Your task to perform on an android device: delete a single message in the gmail app Image 0: 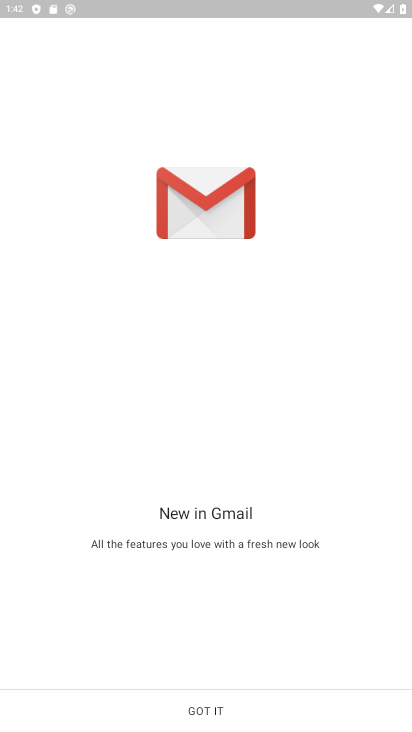
Step 0: click (213, 717)
Your task to perform on an android device: delete a single message in the gmail app Image 1: 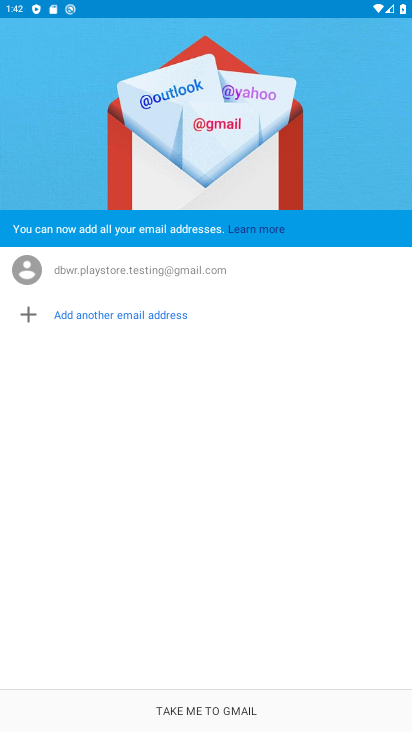
Step 1: click (213, 715)
Your task to perform on an android device: delete a single message in the gmail app Image 2: 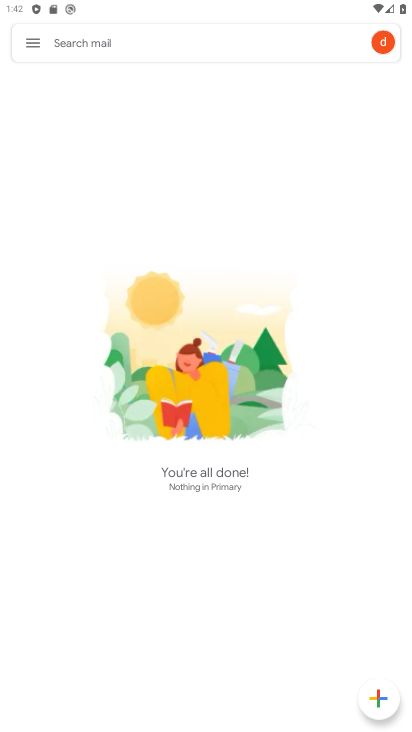
Step 2: click (39, 40)
Your task to perform on an android device: delete a single message in the gmail app Image 3: 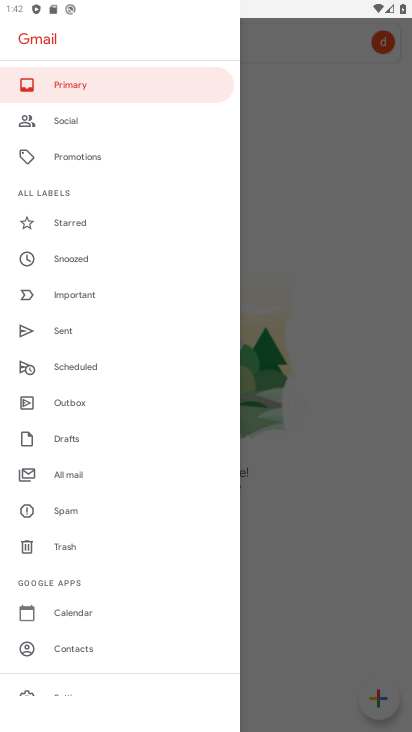
Step 3: click (103, 474)
Your task to perform on an android device: delete a single message in the gmail app Image 4: 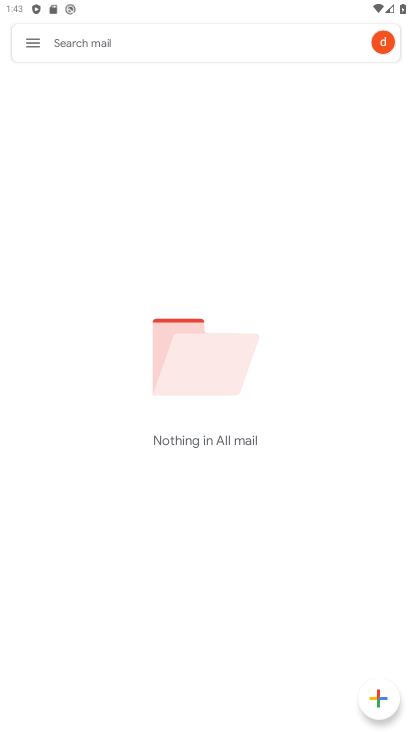
Step 4: task complete